Your task to perform on an android device: open a bookmark in the chrome app Image 0: 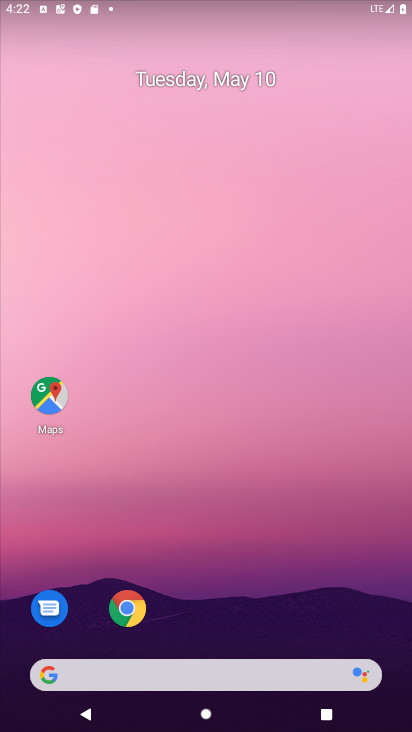
Step 0: click (129, 604)
Your task to perform on an android device: open a bookmark in the chrome app Image 1: 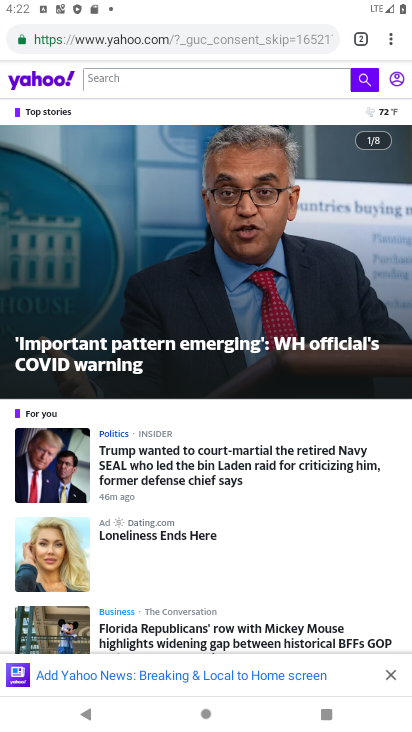
Step 1: click (391, 47)
Your task to perform on an android device: open a bookmark in the chrome app Image 2: 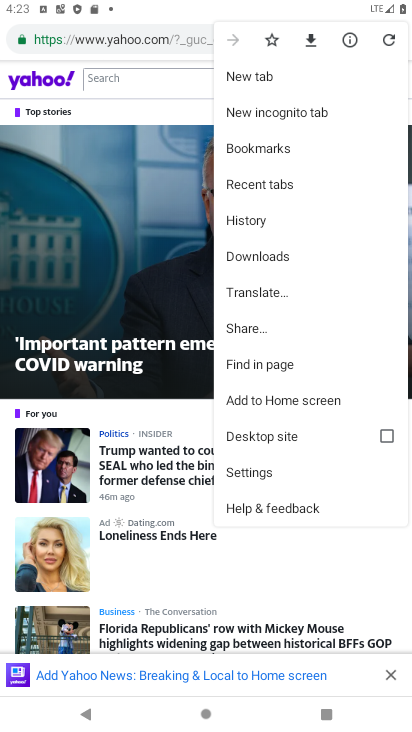
Step 2: click (251, 152)
Your task to perform on an android device: open a bookmark in the chrome app Image 3: 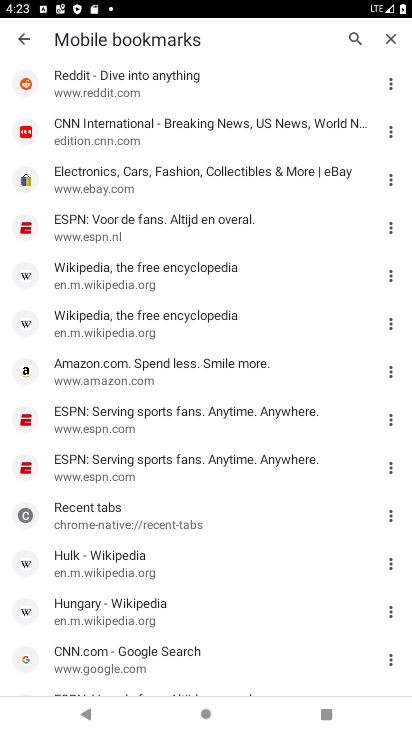
Step 3: click (80, 367)
Your task to perform on an android device: open a bookmark in the chrome app Image 4: 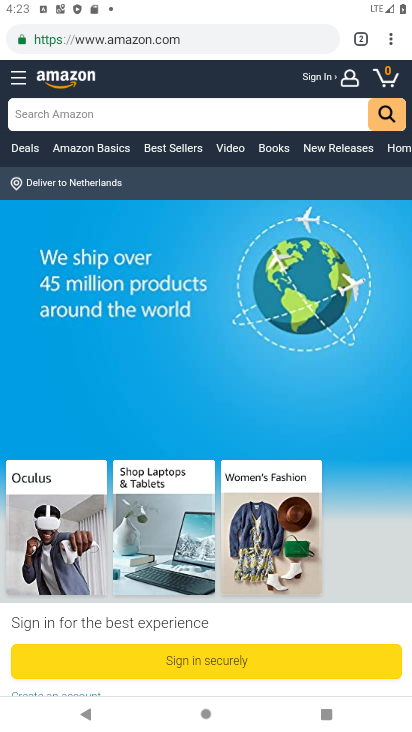
Step 4: task complete